Your task to perform on an android device: Open eBay Image 0: 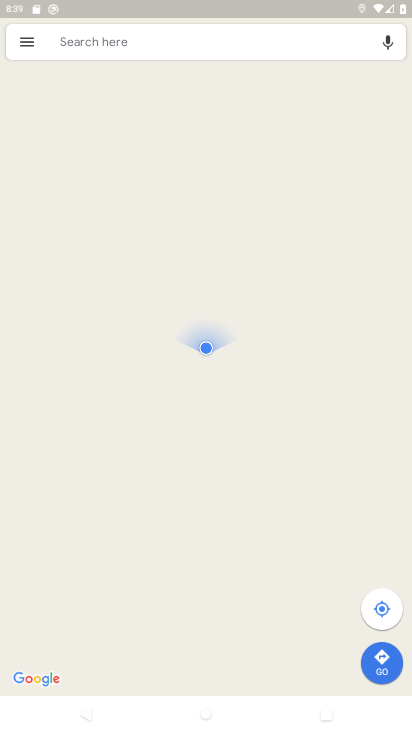
Step 0: press back button
Your task to perform on an android device: Open eBay Image 1: 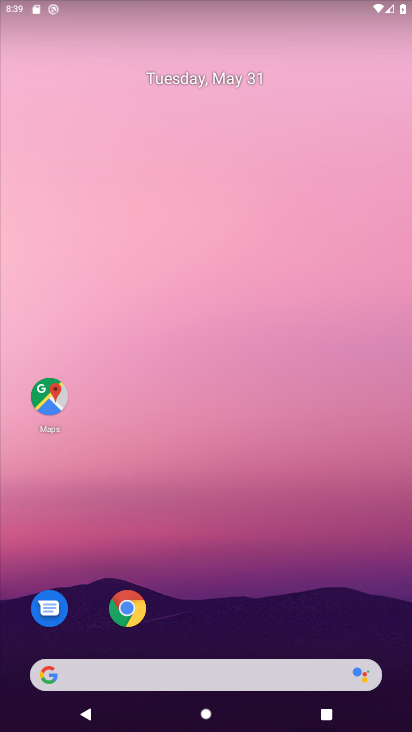
Step 1: click (125, 610)
Your task to perform on an android device: Open eBay Image 2: 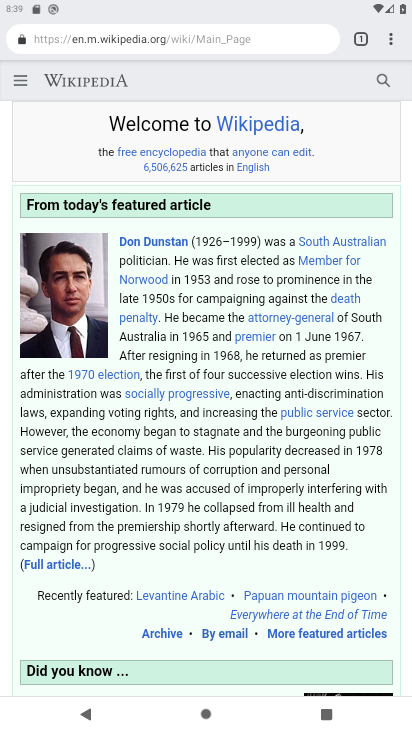
Step 2: click (276, 38)
Your task to perform on an android device: Open eBay Image 3: 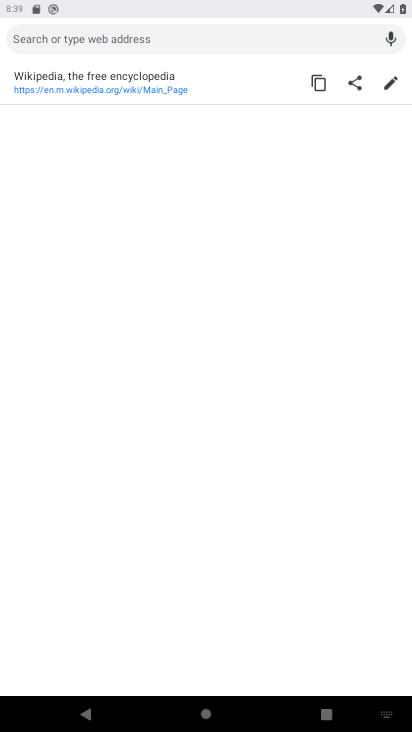
Step 3: type "eBay"
Your task to perform on an android device: Open eBay Image 4: 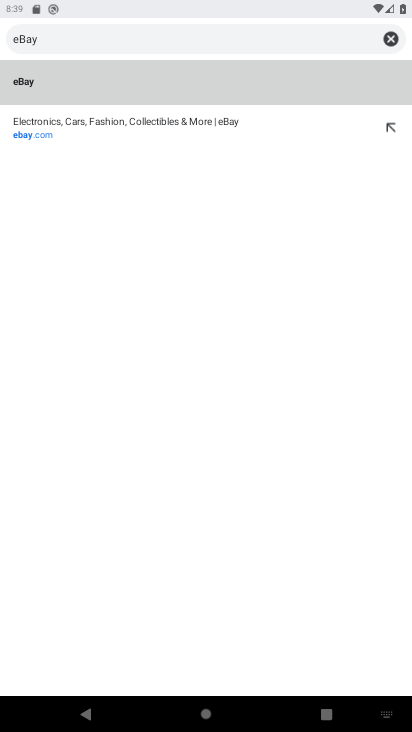
Step 4: click (26, 76)
Your task to perform on an android device: Open eBay Image 5: 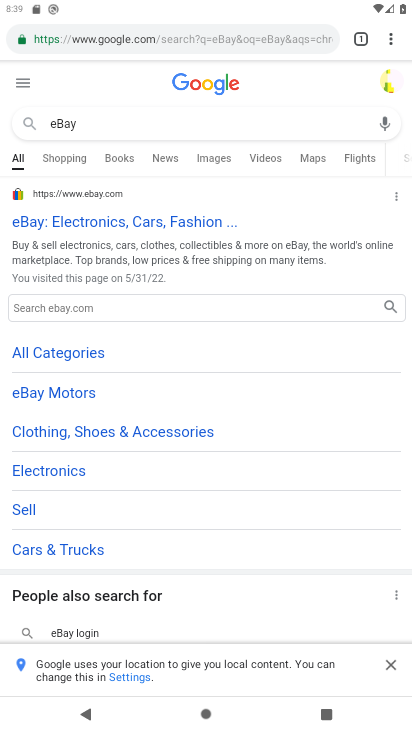
Step 5: click (94, 221)
Your task to perform on an android device: Open eBay Image 6: 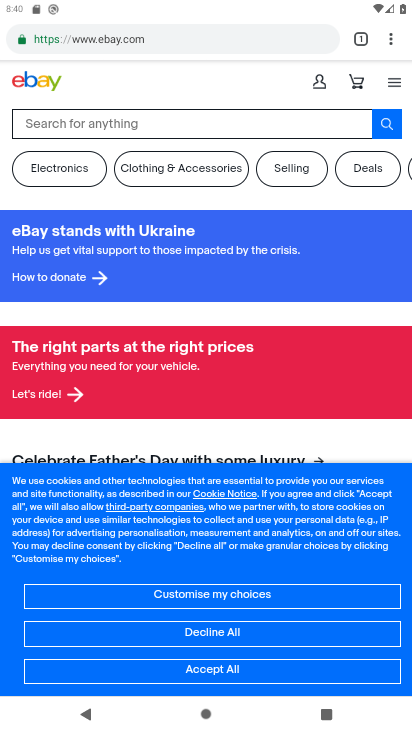
Step 6: task complete